Your task to perform on an android device: Go to eBay Image 0: 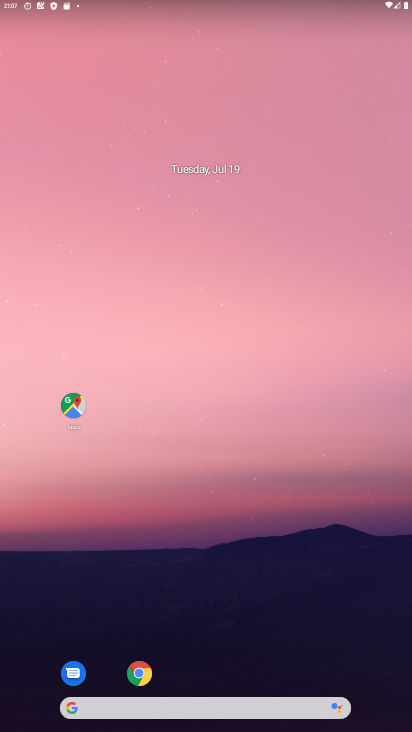
Step 0: click (133, 672)
Your task to perform on an android device: Go to eBay Image 1: 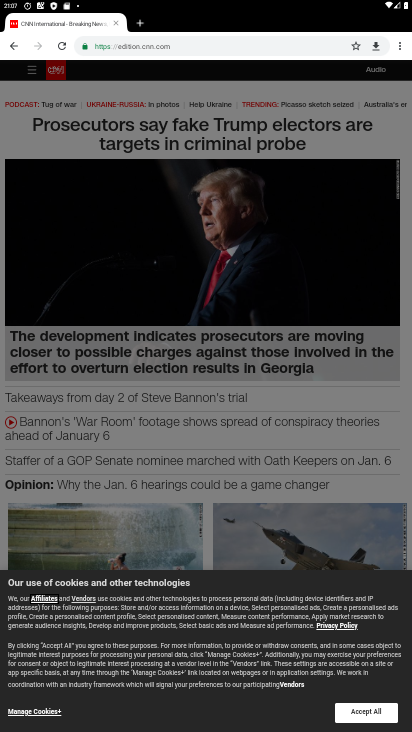
Step 1: click (178, 47)
Your task to perform on an android device: Go to eBay Image 2: 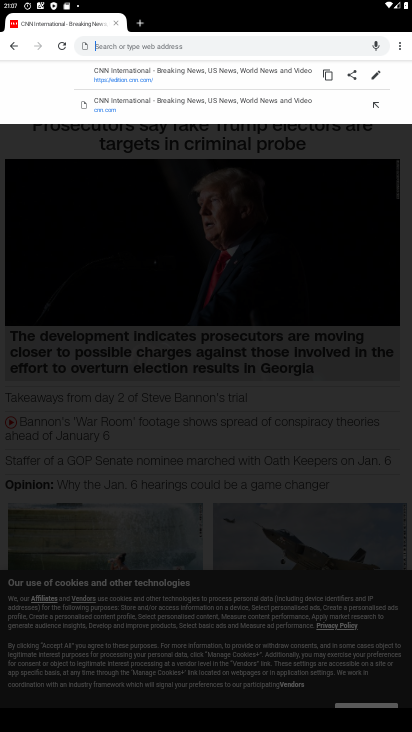
Step 2: type "eBay"
Your task to perform on an android device: Go to eBay Image 3: 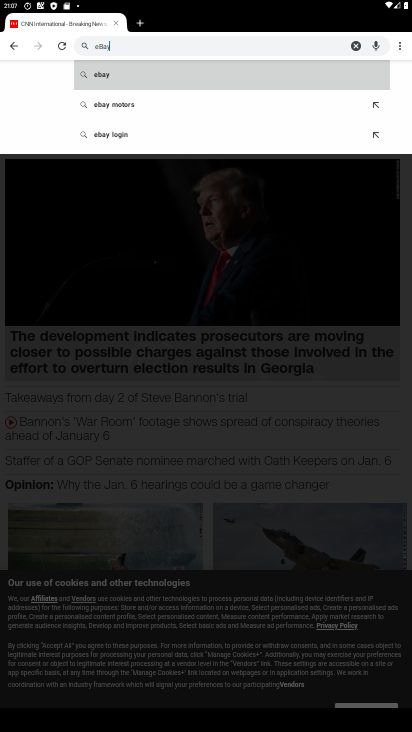
Step 3: click (127, 74)
Your task to perform on an android device: Go to eBay Image 4: 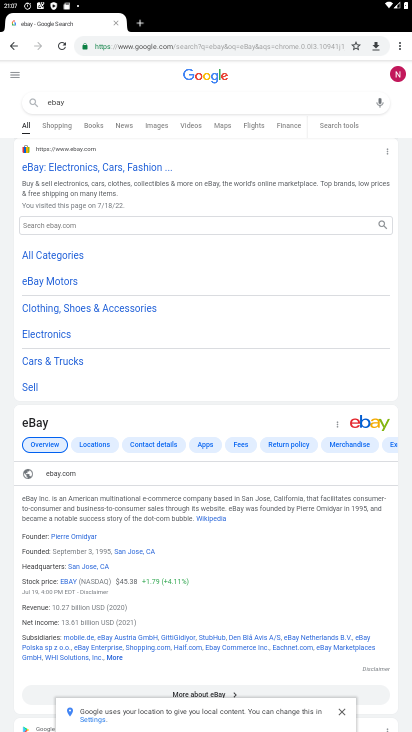
Step 4: task complete